Your task to perform on an android device: open chrome privacy settings Image 0: 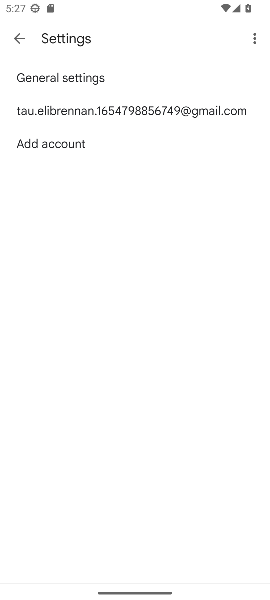
Step 0: press home button
Your task to perform on an android device: open chrome privacy settings Image 1: 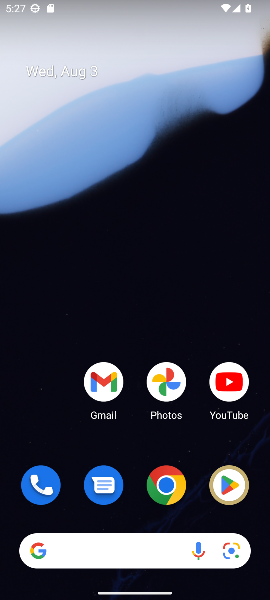
Step 1: drag from (141, 460) to (189, 35)
Your task to perform on an android device: open chrome privacy settings Image 2: 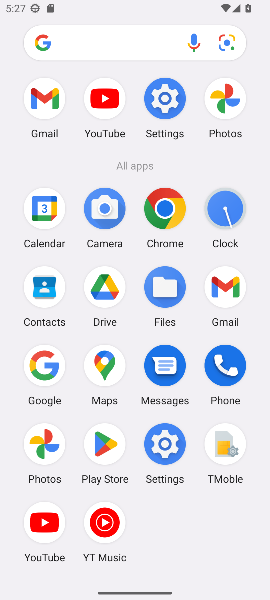
Step 2: click (163, 221)
Your task to perform on an android device: open chrome privacy settings Image 3: 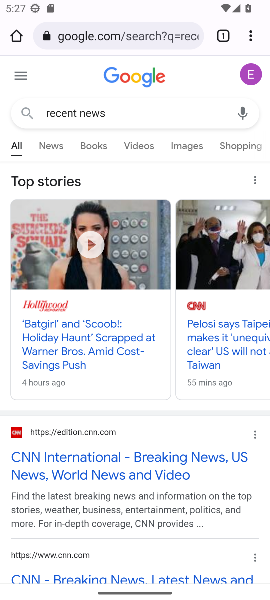
Step 3: click (253, 35)
Your task to perform on an android device: open chrome privacy settings Image 4: 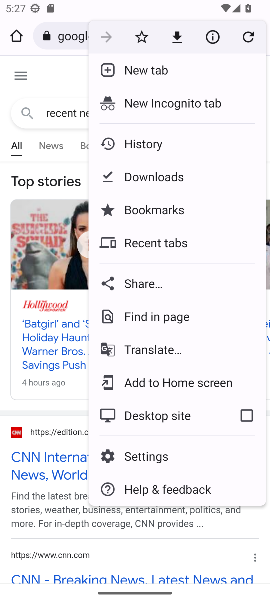
Step 4: click (158, 458)
Your task to perform on an android device: open chrome privacy settings Image 5: 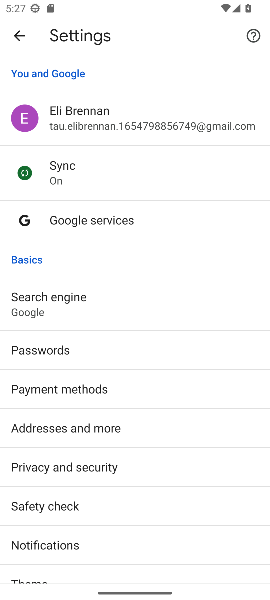
Step 5: drag from (68, 454) to (107, 220)
Your task to perform on an android device: open chrome privacy settings Image 6: 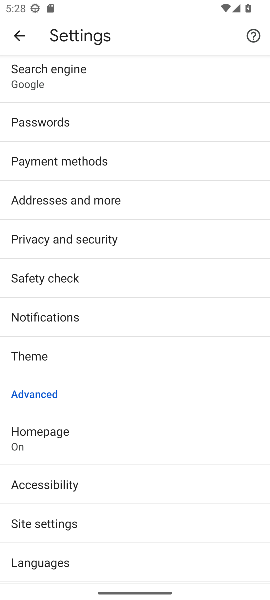
Step 6: drag from (54, 429) to (91, 67)
Your task to perform on an android device: open chrome privacy settings Image 7: 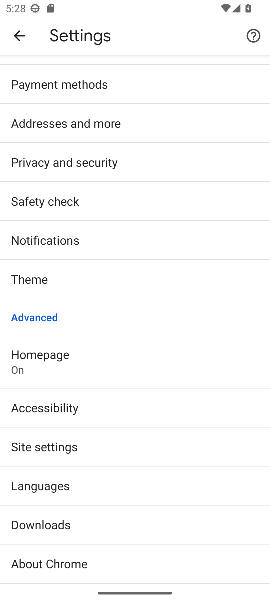
Step 7: drag from (63, 464) to (66, 297)
Your task to perform on an android device: open chrome privacy settings Image 8: 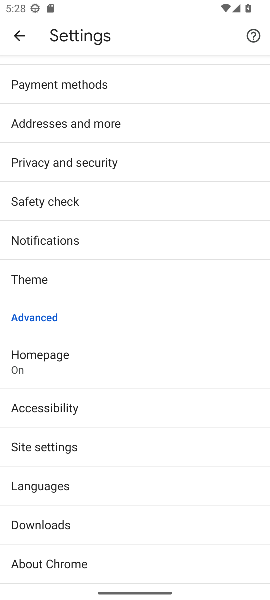
Step 8: drag from (47, 393) to (58, 522)
Your task to perform on an android device: open chrome privacy settings Image 9: 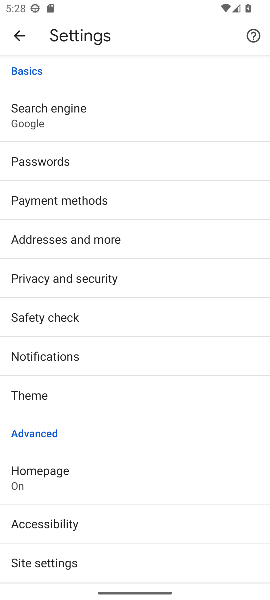
Step 9: click (66, 286)
Your task to perform on an android device: open chrome privacy settings Image 10: 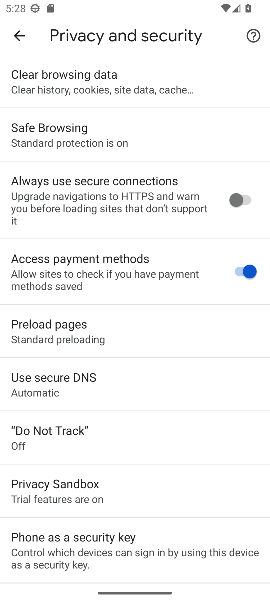
Step 10: task complete